Your task to perform on an android device: turn off translation in the chrome app Image 0: 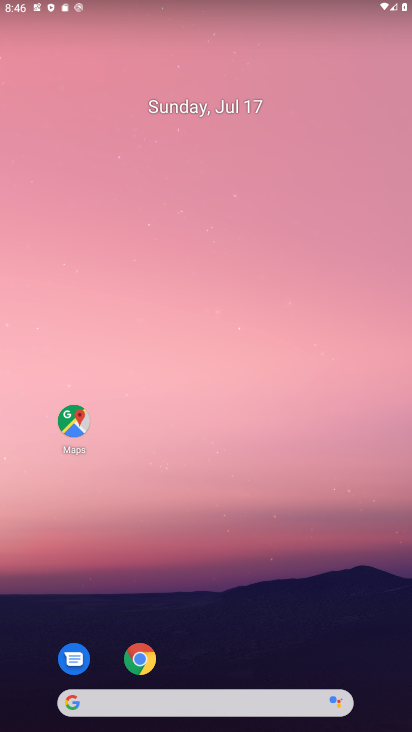
Step 0: click (134, 661)
Your task to perform on an android device: turn off translation in the chrome app Image 1: 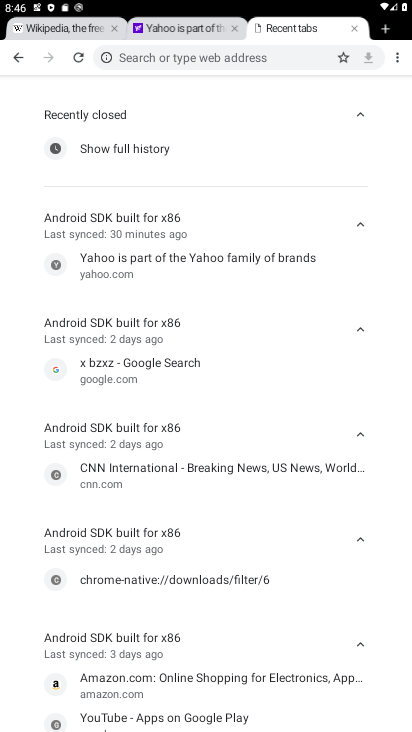
Step 1: click (397, 63)
Your task to perform on an android device: turn off translation in the chrome app Image 2: 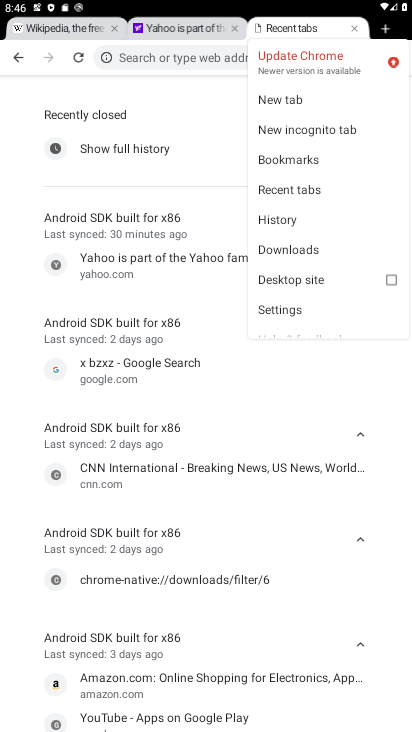
Step 2: click (308, 309)
Your task to perform on an android device: turn off translation in the chrome app Image 3: 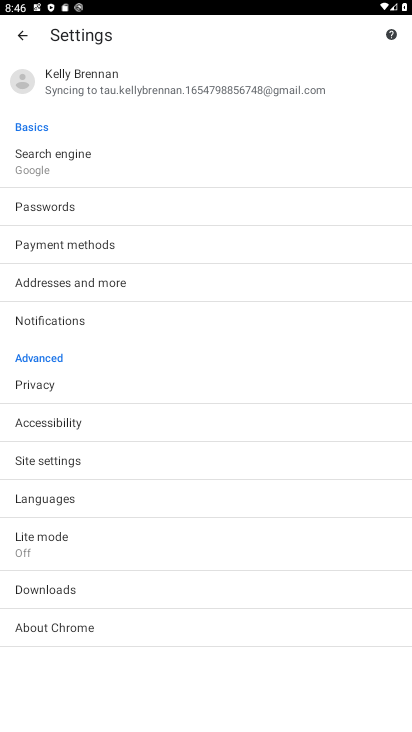
Step 3: click (88, 495)
Your task to perform on an android device: turn off translation in the chrome app Image 4: 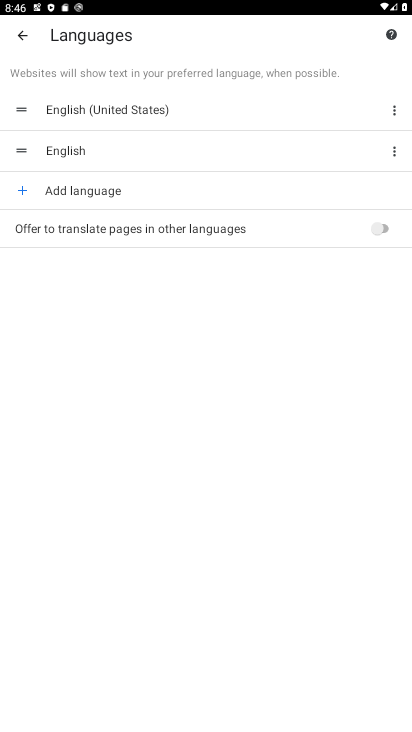
Step 4: task complete